Your task to perform on an android device: turn pop-ups on in chrome Image 0: 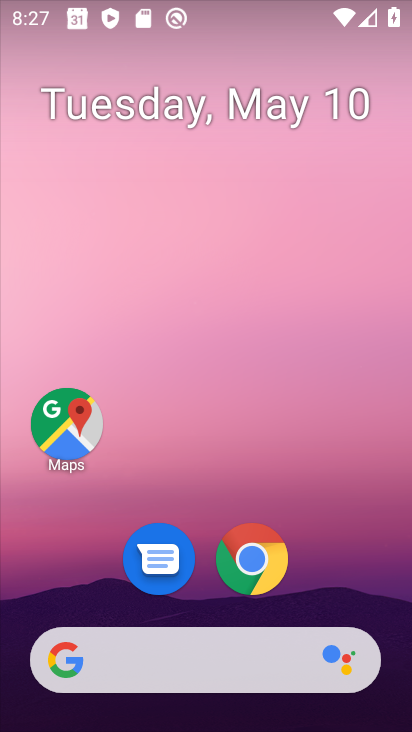
Step 0: drag from (350, 563) to (278, 32)
Your task to perform on an android device: turn pop-ups on in chrome Image 1: 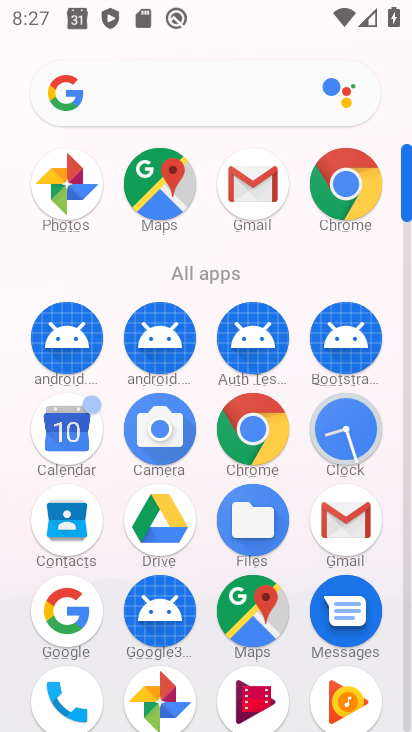
Step 1: click (254, 425)
Your task to perform on an android device: turn pop-ups on in chrome Image 2: 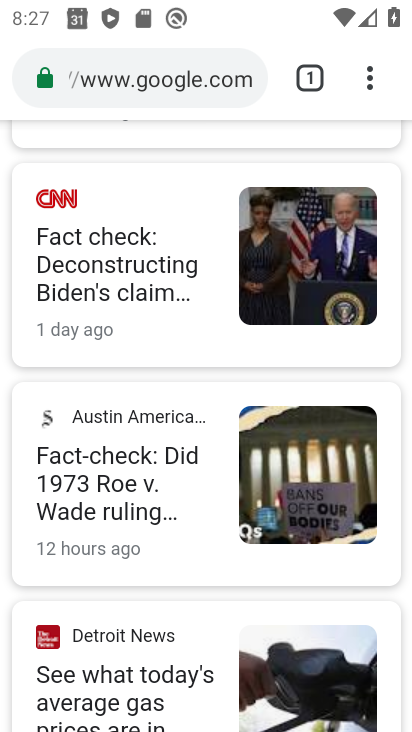
Step 2: drag from (368, 78) to (110, 611)
Your task to perform on an android device: turn pop-ups on in chrome Image 3: 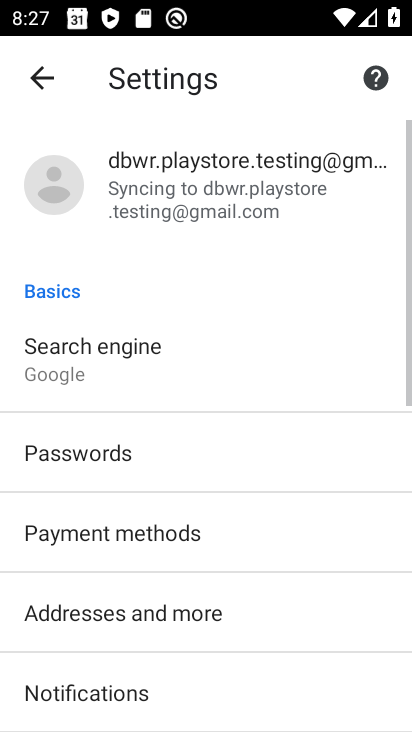
Step 3: drag from (280, 639) to (298, 158)
Your task to perform on an android device: turn pop-ups on in chrome Image 4: 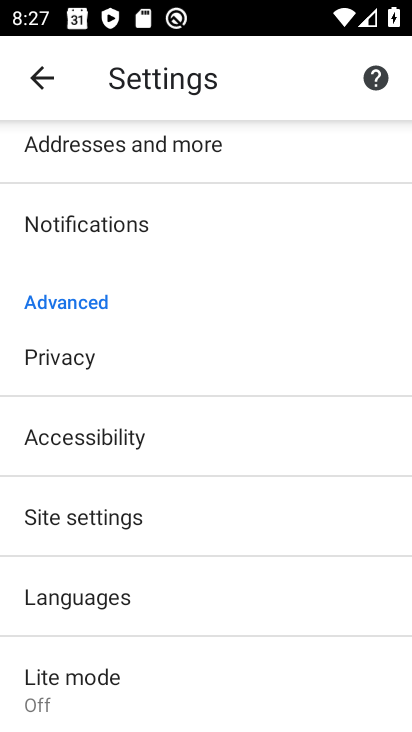
Step 4: click (147, 517)
Your task to perform on an android device: turn pop-ups on in chrome Image 5: 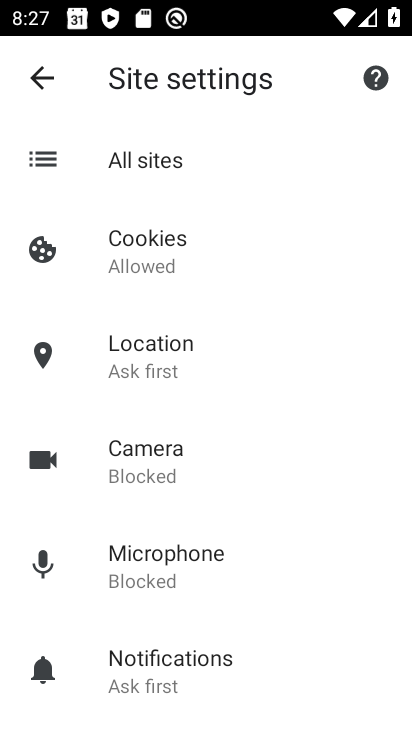
Step 5: drag from (235, 628) to (271, 201)
Your task to perform on an android device: turn pop-ups on in chrome Image 6: 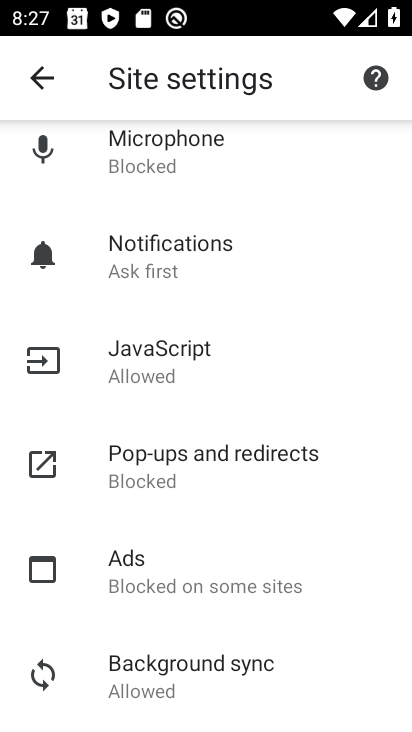
Step 6: click (193, 456)
Your task to perform on an android device: turn pop-ups on in chrome Image 7: 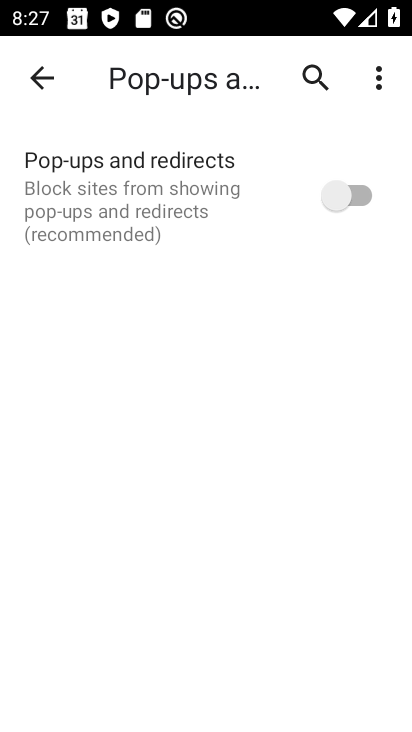
Step 7: click (342, 186)
Your task to perform on an android device: turn pop-ups on in chrome Image 8: 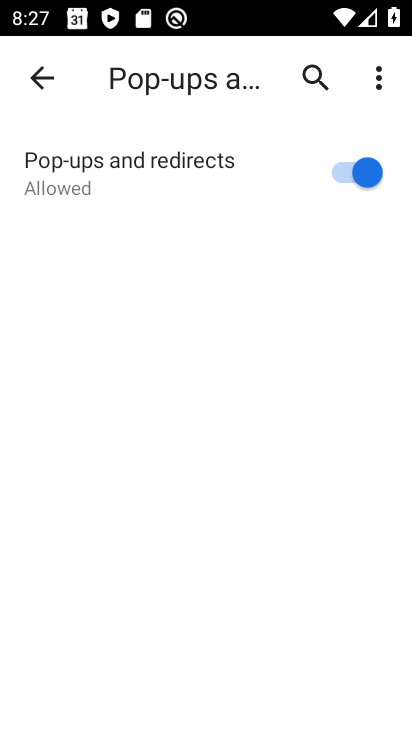
Step 8: task complete